Your task to perform on an android device: Do I have any events tomorrow? Image 0: 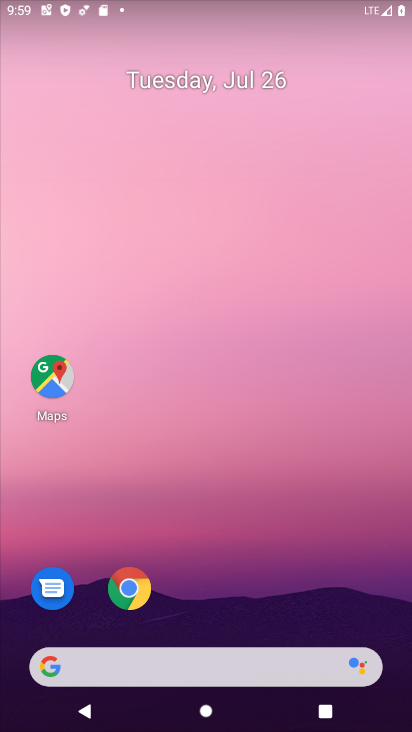
Step 0: drag from (183, 675) to (206, 67)
Your task to perform on an android device: Do I have any events tomorrow? Image 1: 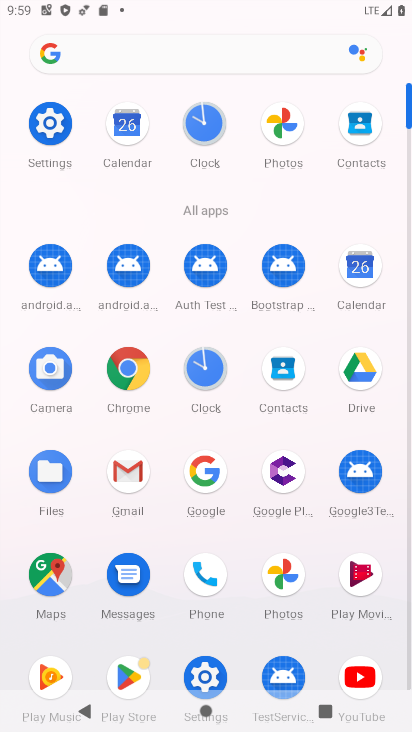
Step 1: click (359, 269)
Your task to perform on an android device: Do I have any events tomorrow? Image 2: 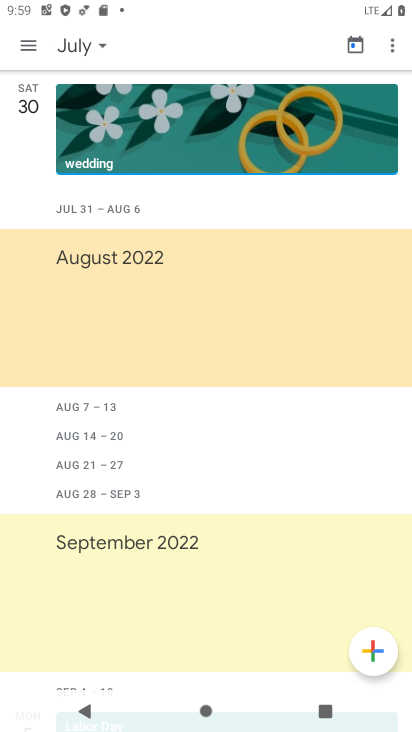
Step 2: click (355, 43)
Your task to perform on an android device: Do I have any events tomorrow? Image 3: 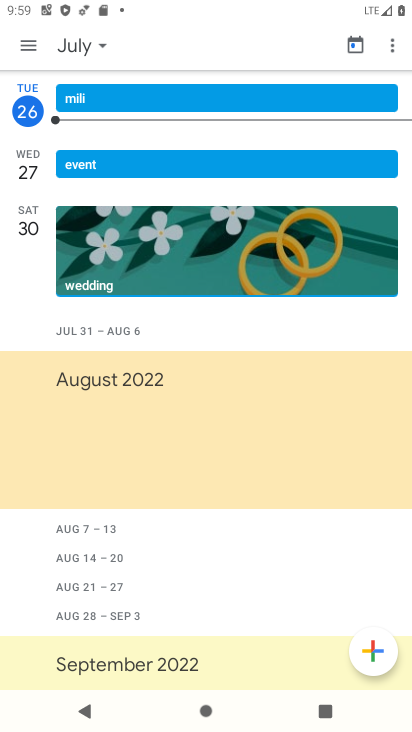
Step 3: click (392, 46)
Your task to perform on an android device: Do I have any events tomorrow? Image 4: 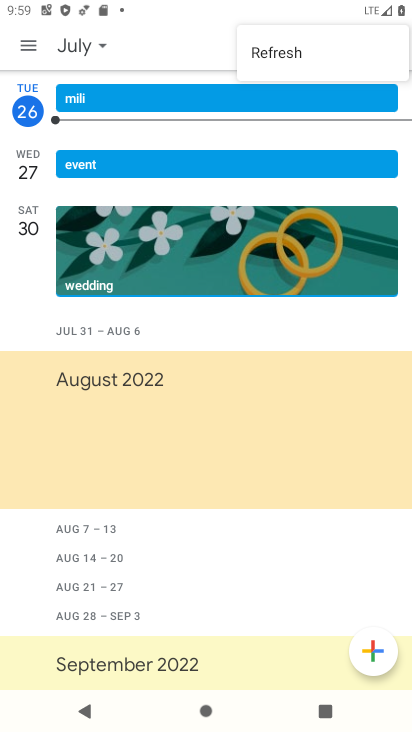
Step 4: click (103, 49)
Your task to perform on an android device: Do I have any events tomorrow? Image 5: 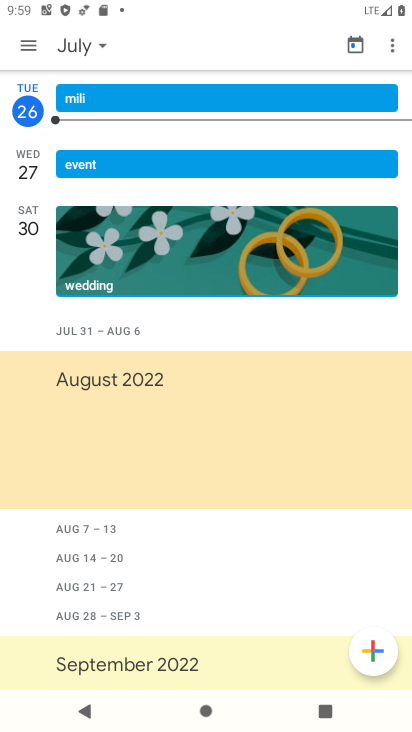
Step 5: click (104, 44)
Your task to perform on an android device: Do I have any events tomorrow? Image 6: 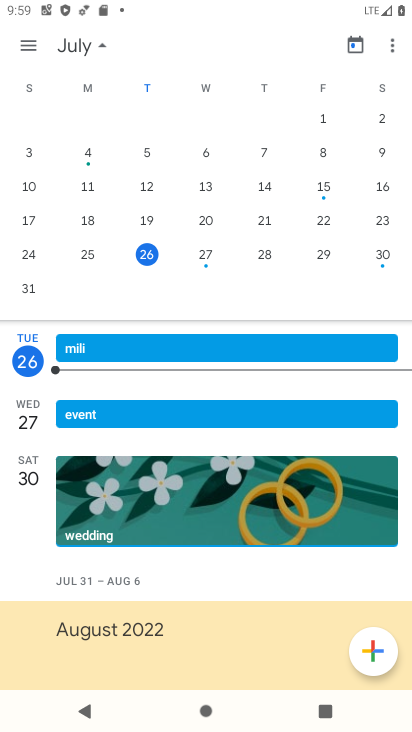
Step 6: click (210, 258)
Your task to perform on an android device: Do I have any events tomorrow? Image 7: 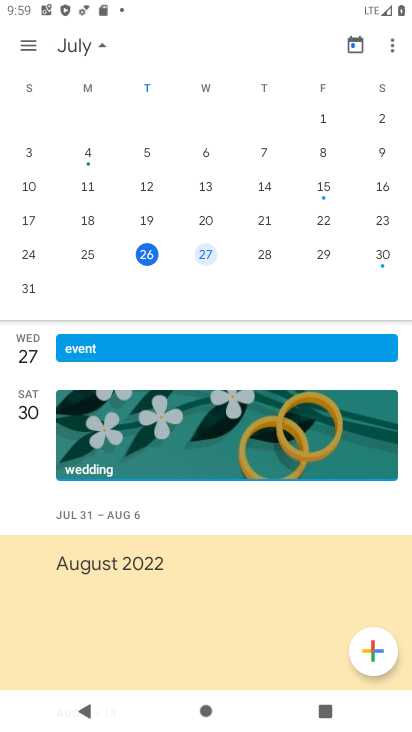
Step 7: click (23, 40)
Your task to perform on an android device: Do I have any events tomorrow? Image 8: 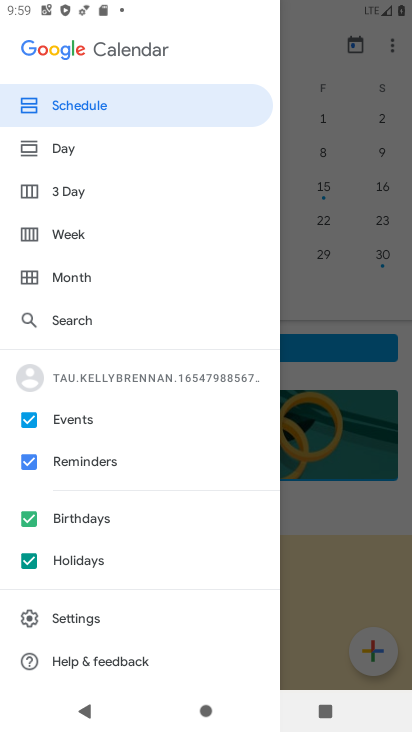
Step 8: click (75, 124)
Your task to perform on an android device: Do I have any events tomorrow? Image 9: 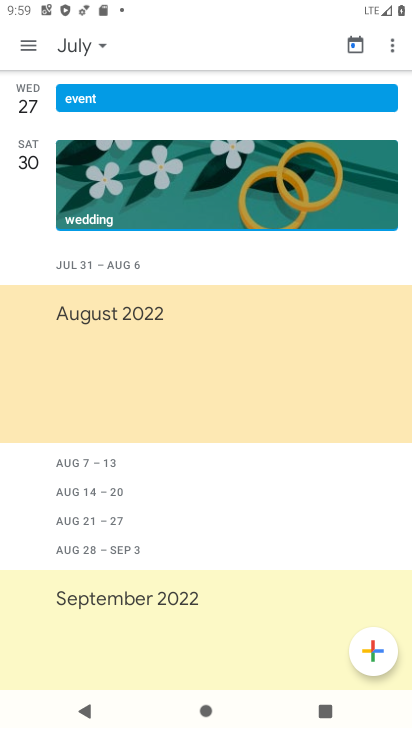
Step 9: task complete